Your task to perform on an android device: turn off smart reply in the gmail app Image 0: 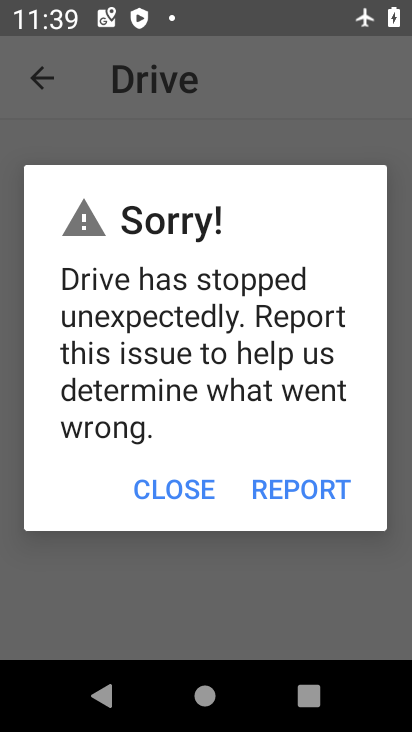
Step 0: press home button
Your task to perform on an android device: turn off smart reply in the gmail app Image 1: 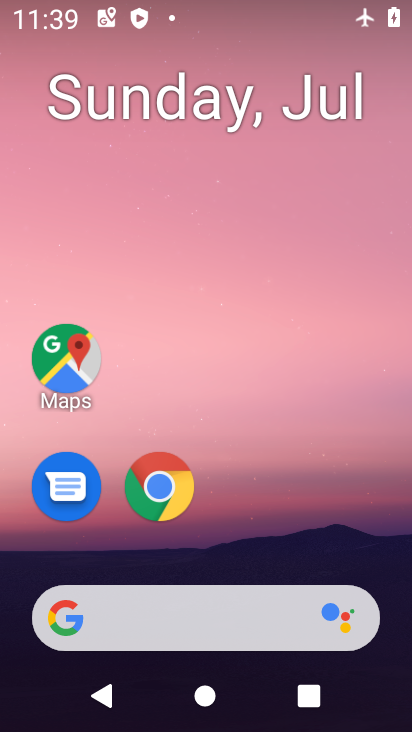
Step 1: drag from (378, 507) to (377, 82)
Your task to perform on an android device: turn off smart reply in the gmail app Image 2: 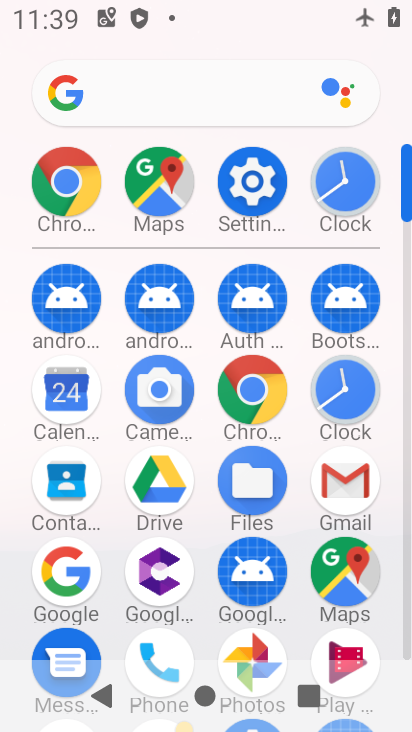
Step 2: click (362, 474)
Your task to perform on an android device: turn off smart reply in the gmail app Image 3: 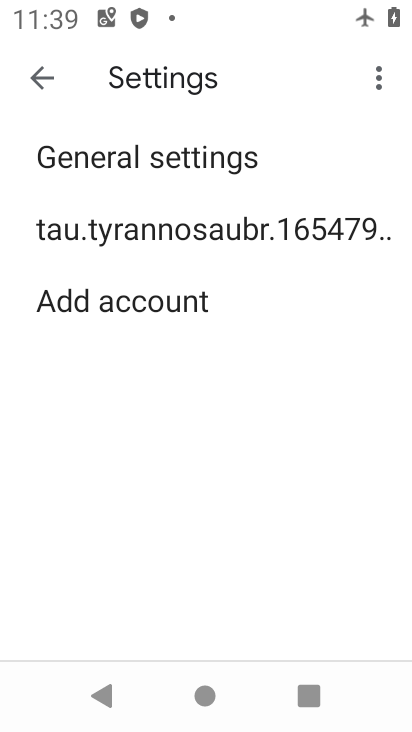
Step 3: click (258, 235)
Your task to perform on an android device: turn off smart reply in the gmail app Image 4: 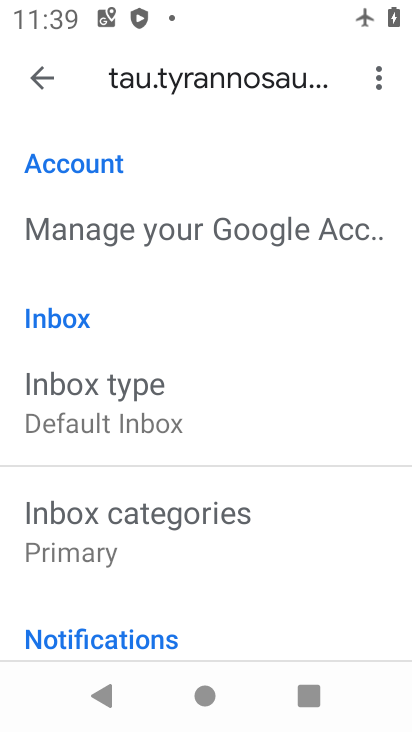
Step 4: drag from (306, 567) to (309, 376)
Your task to perform on an android device: turn off smart reply in the gmail app Image 5: 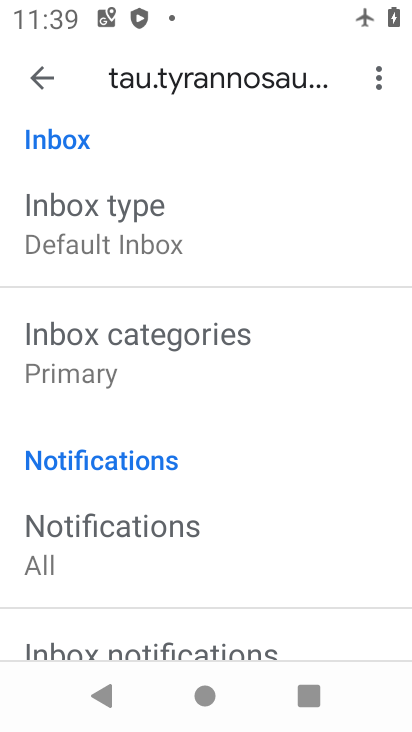
Step 5: drag from (334, 501) to (343, 331)
Your task to perform on an android device: turn off smart reply in the gmail app Image 6: 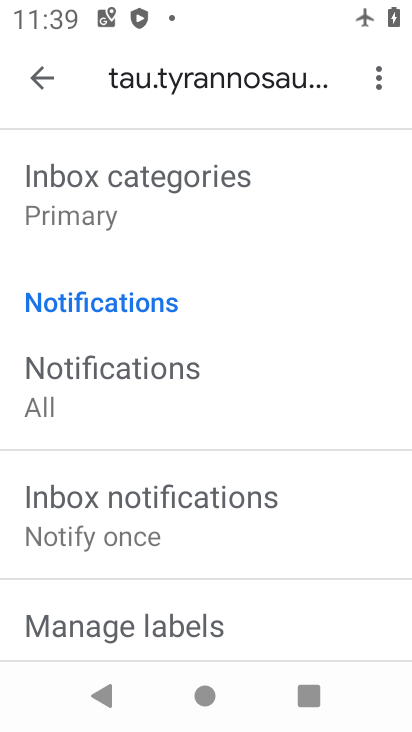
Step 6: drag from (341, 533) to (343, 414)
Your task to perform on an android device: turn off smart reply in the gmail app Image 7: 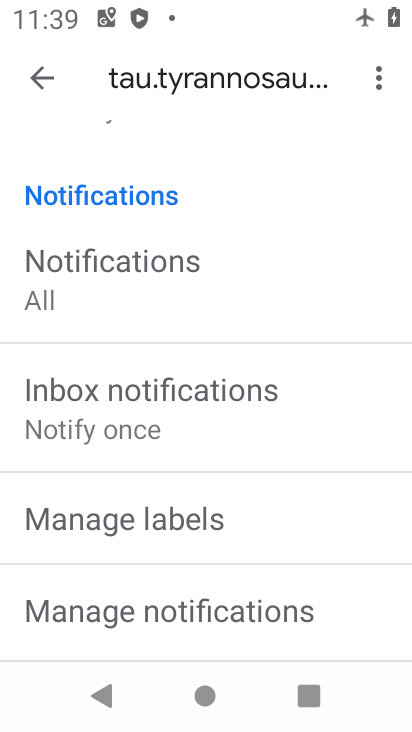
Step 7: drag from (343, 515) to (337, 379)
Your task to perform on an android device: turn off smart reply in the gmail app Image 8: 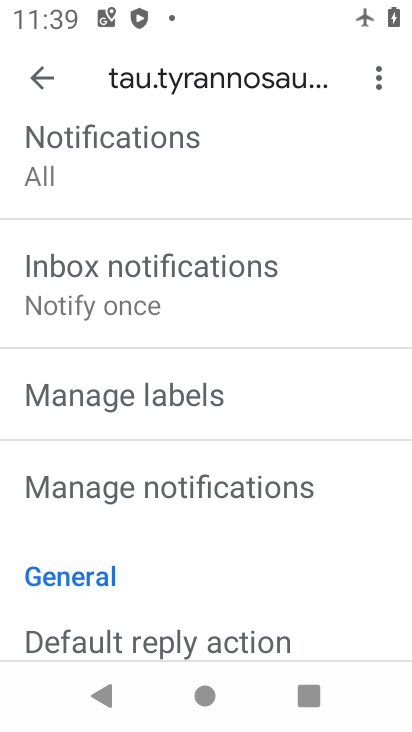
Step 8: drag from (349, 558) to (346, 441)
Your task to perform on an android device: turn off smart reply in the gmail app Image 9: 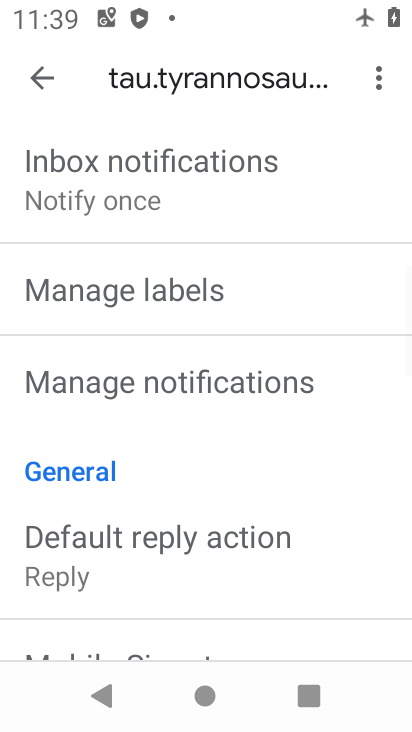
Step 9: drag from (327, 570) to (321, 459)
Your task to perform on an android device: turn off smart reply in the gmail app Image 10: 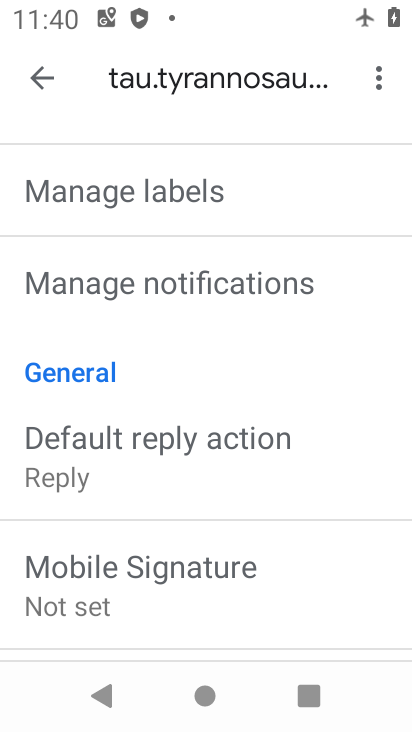
Step 10: drag from (308, 583) to (305, 477)
Your task to perform on an android device: turn off smart reply in the gmail app Image 11: 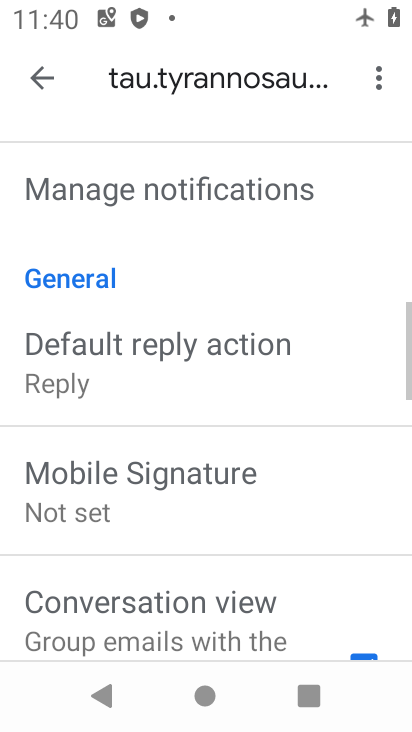
Step 11: drag from (318, 543) to (298, 416)
Your task to perform on an android device: turn off smart reply in the gmail app Image 12: 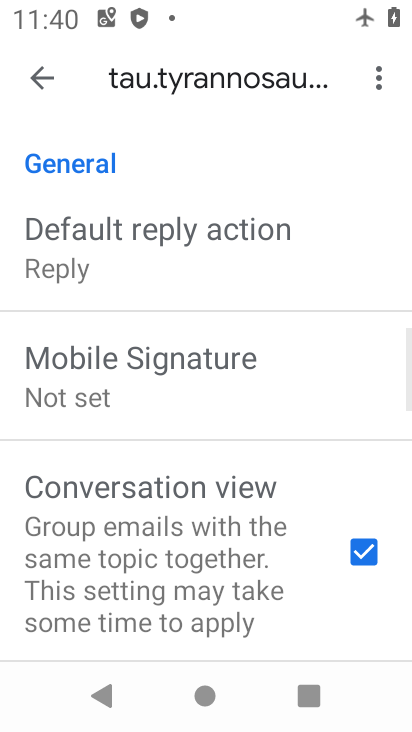
Step 12: drag from (298, 597) to (297, 451)
Your task to perform on an android device: turn off smart reply in the gmail app Image 13: 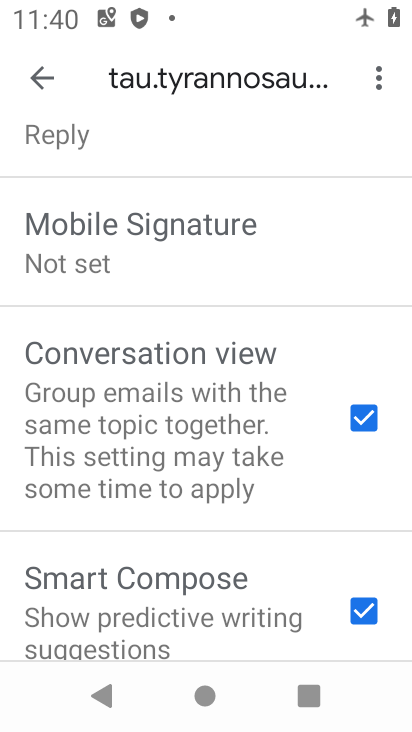
Step 13: drag from (294, 639) to (293, 490)
Your task to perform on an android device: turn off smart reply in the gmail app Image 14: 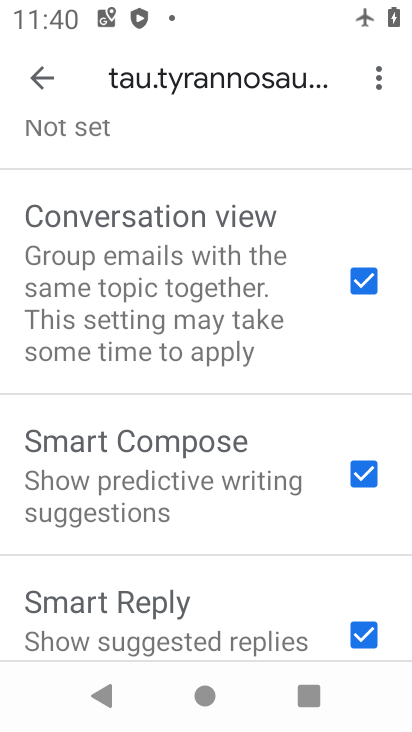
Step 14: drag from (290, 601) to (284, 493)
Your task to perform on an android device: turn off smart reply in the gmail app Image 15: 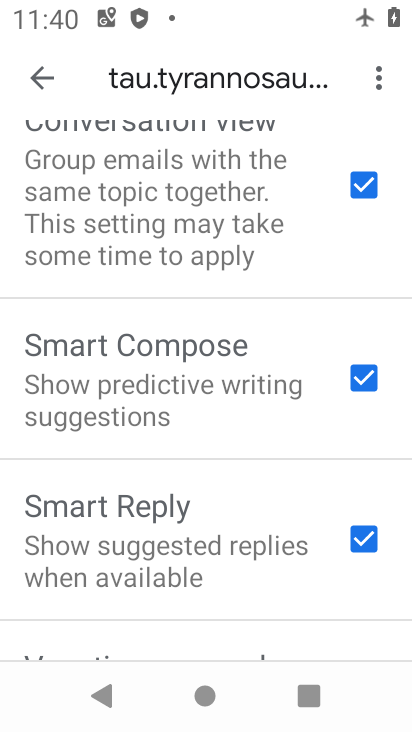
Step 15: click (369, 536)
Your task to perform on an android device: turn off smart reply in the gmail app Image 16: 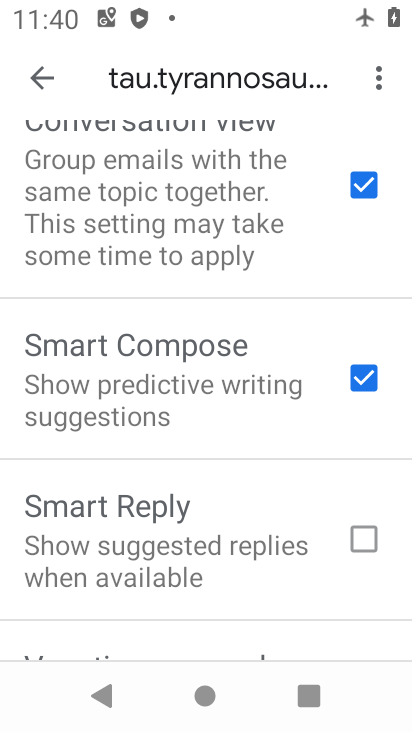
Step 16: task complete